Your task to perform on an android device: Go to wifi settings Image 0: 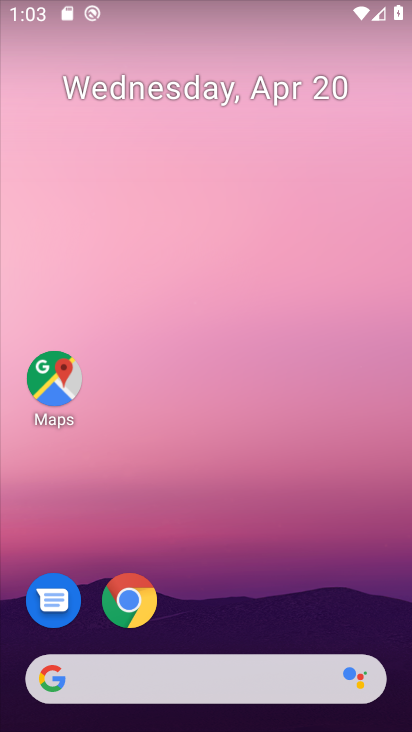
Step 0: drag from (361, 615) to (325, 112)
Your task to perform on an android device: Go to wifi settings Image 1: 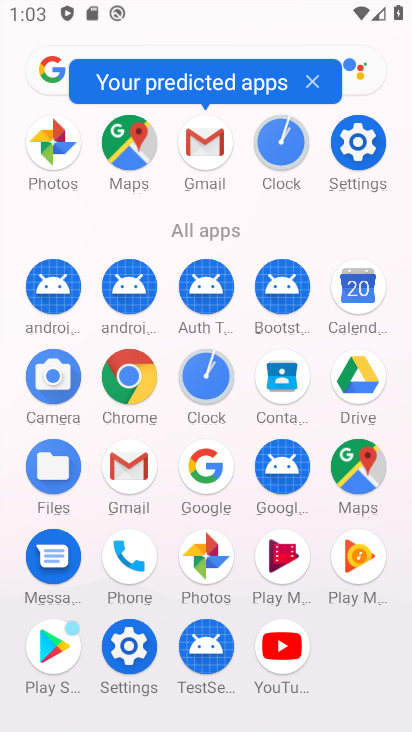
Step 1: click (125, 643)
Your task to perform on an android device: Go to wifi settings Image 2: 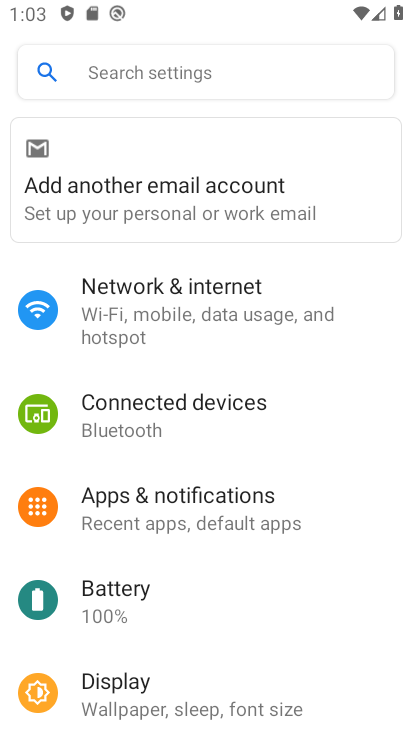
Step 2: click (130, 295)
Your task to perform on an android device: Go to wifi settings Image 3: 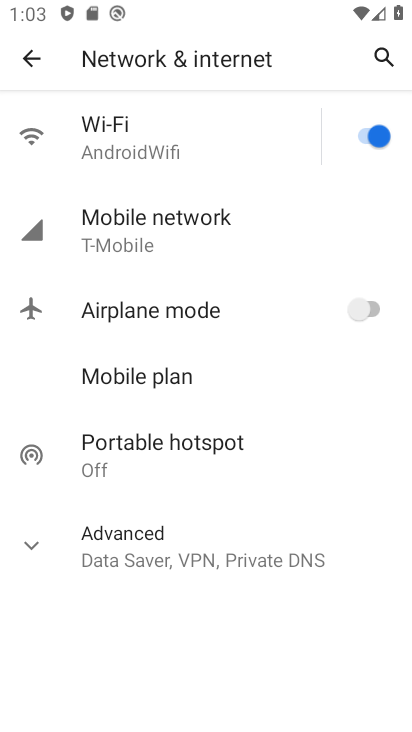
Step 3: click (94, 133)
Your task to perform on an android device: Go to wifi settings Image 4: 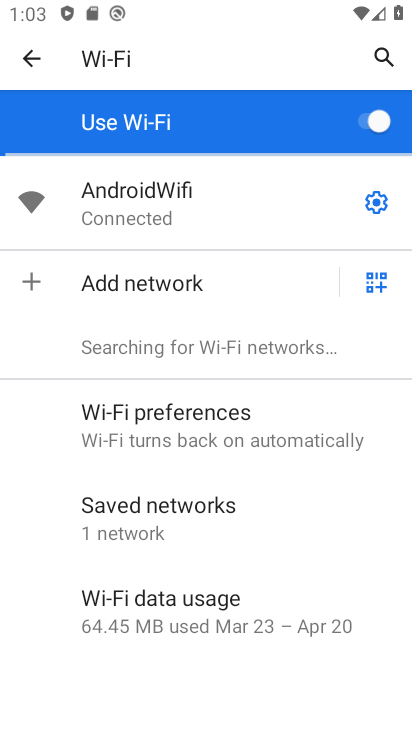
Step 4: click (375, 199)
Your task to perform on an android device: Go to wifi settings Image 5: 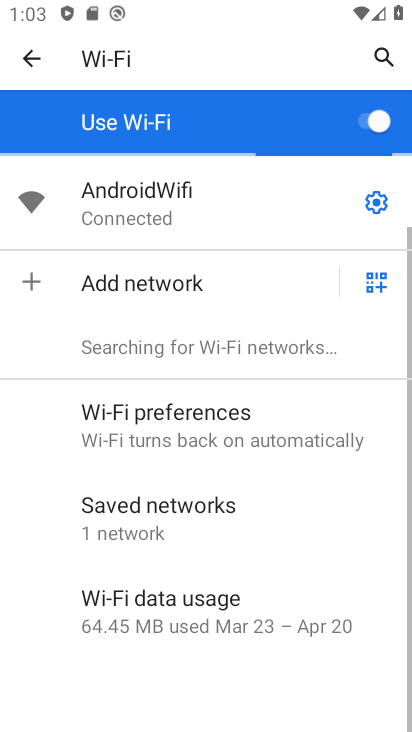
Step 5: click (374, 205)
Your task to perform on an android device: Go to wifi settings Image 6: 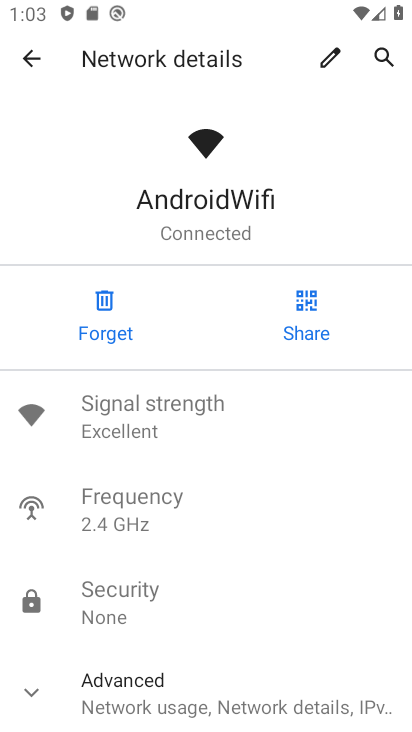
Step 6: drag from (229, 638) to (203, 284)
Your task to perform on an android device: Go to wifi settings Image 7: 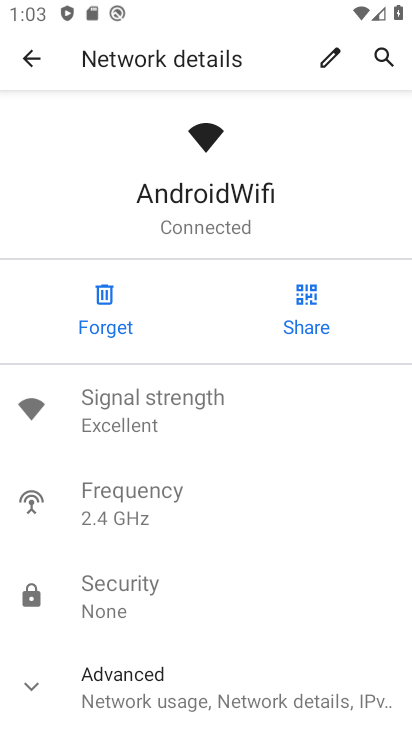
Step 7: click (33, 688)
Your task to perform on an android device: Go to wifi settings Image 8: 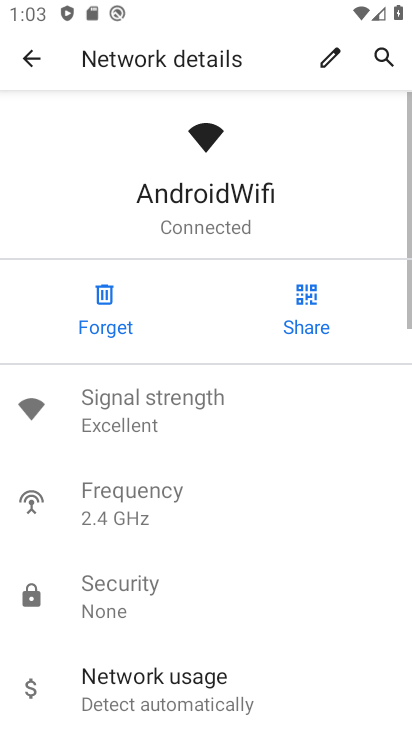
Step 8: task complete